Your task to perform on an android device: Open Google Chrome Image 0: 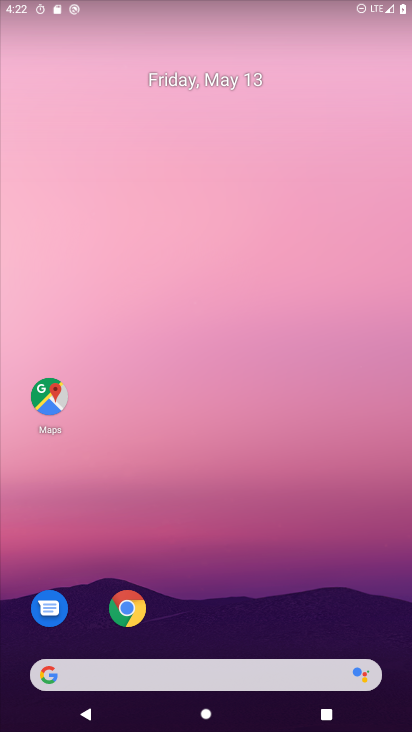
Step 0: click (138, 597)
Your task to perform on an android device: Open Google Chrome Image 1: 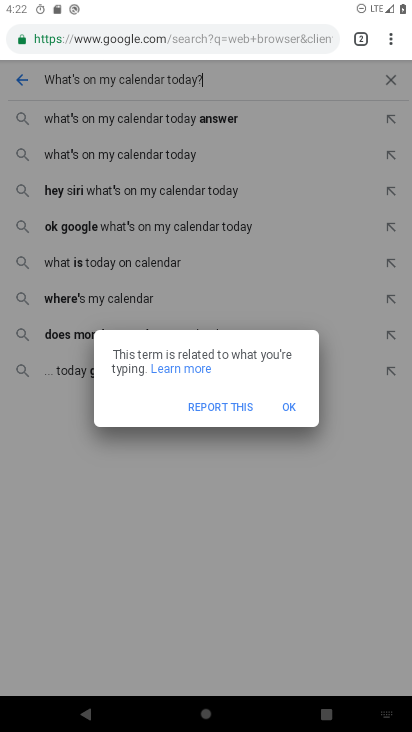
Step 1: press home button
Your task to perform on an android device: Open Google Chrome Image 2: 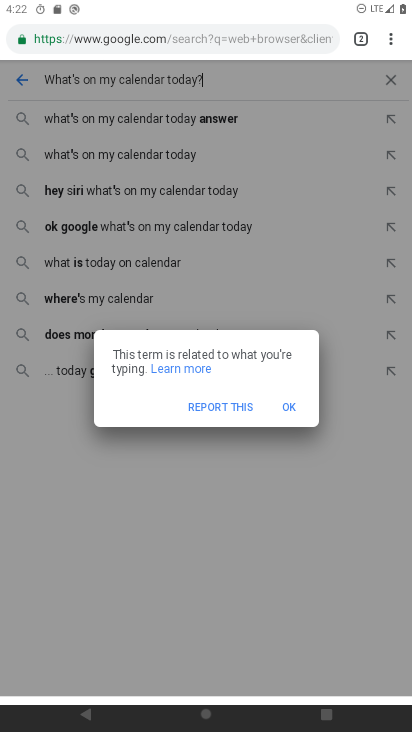
Step 2: press home button
Your task to perform on an android device: Open Google Chrome Image 3: 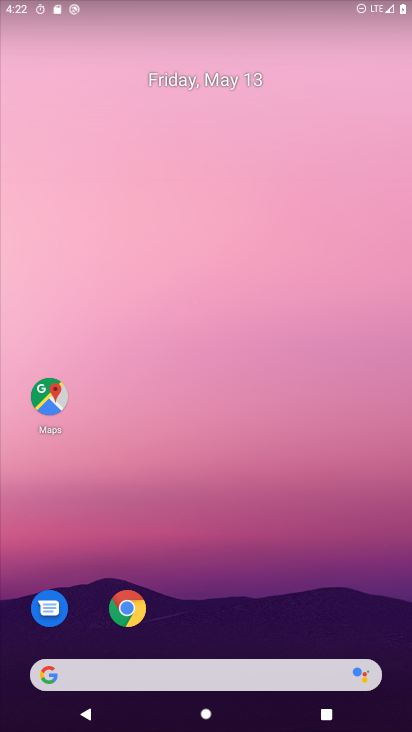
Step 3: click (118, 602)
Your task to perform on an android device: Open Google Chrome Image 4: 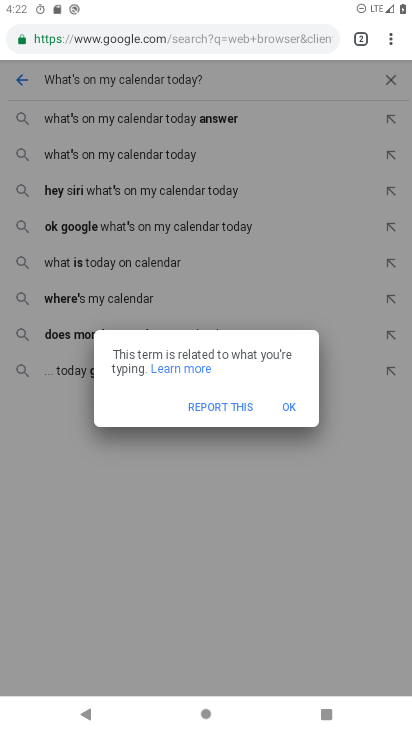
Step 4: task complete